Your task to perform on an android device: Search for alienware area 51 on newegg, select the first entry, add it to the cart, then select checkout. Image 0: 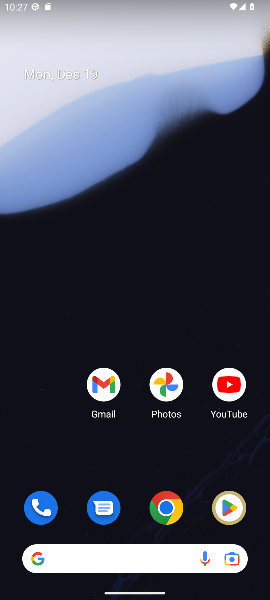
Step 0: click (163, 504)
Your task to perform on an android device: Search for alienware area 51 on newegg, select the first entry, add it to the cart, then select checkout. Image 1: 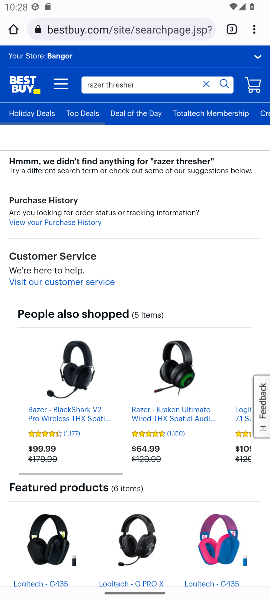
Step 1: click (231, 31)
Your task to perform on an android device: Search for alienware area 51 on newegg, select the first entry, add it to the cart, then select checkout. Image 2: 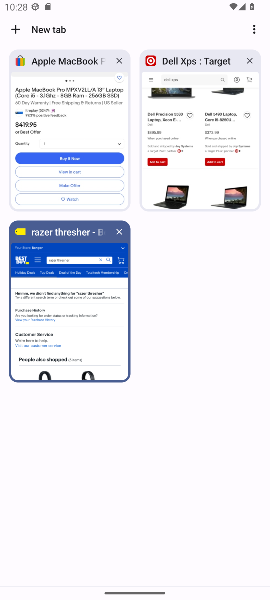
Step 2: click (17, 28)
Your task to perform on an android device: Search for alienware area 51 on newegg, select the first entry, add it to the cart, then select checkout. Image 3: 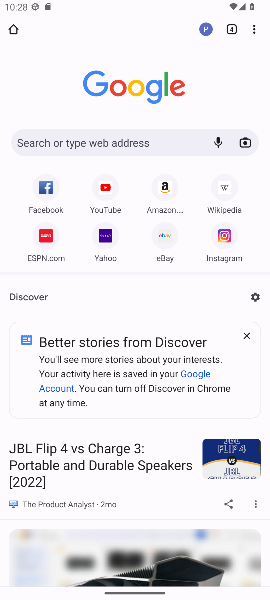
Step 3: click (97, 142)
Your task to perform on an android device: Search for alienware area 51 on newegg, select the first entry, add it to the cart, then select checkout. Image 4: 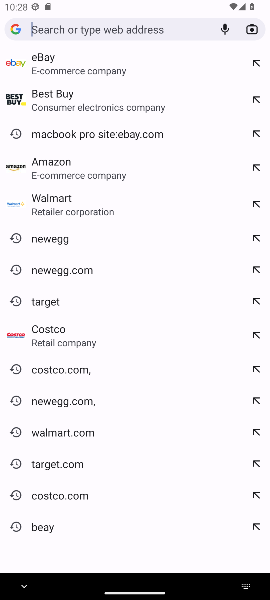
Step 4: click (59, 242)
Your task to perform on an android device: Search for alienware area 51 on newegg, select the first entry, add it to the cart, then select checkout. Image 5: 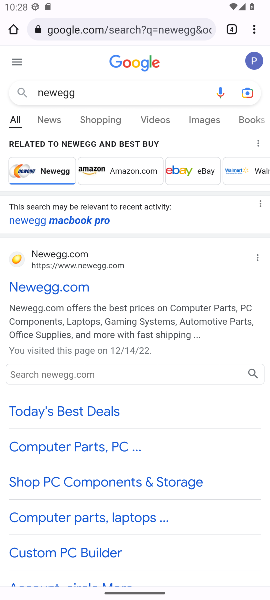
Step 5: click (42, 374)
Your task to perform on an android device: Search for alienware area 51 on newegg, select the first entry, add it to the cart, then select checkout. Image 6: 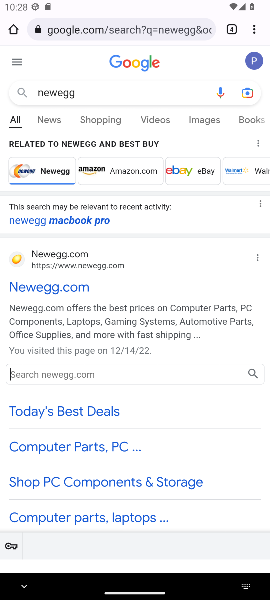
Step 6: type "alienware area 51"
Your task to perform on an android device: Search for alienware area 51 on newegg, select the first entry, add it to the cart, then select checkout. Image 7: 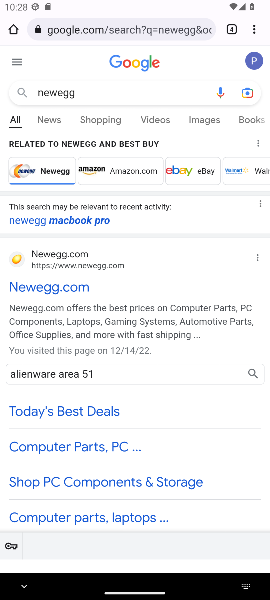
Step 7: click (252, 370)
Your task to perform on an android device: Search for alienware area 51 on newegg, select the first entry, add it to the cart, then select checkout. Image 8: 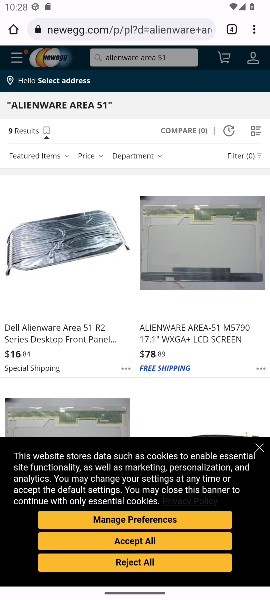
Step 8: click (170, 568)
Your task to perform on an android device: Search for alienware area 51 on newegg, select the first entry, add it to the cart, then select checkout. Image 9: 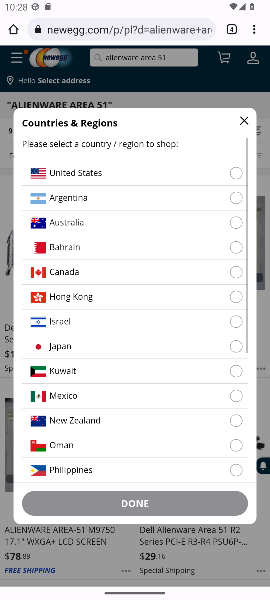
Step 9: click (233, 170)
Your task to perform on an android device: Search for alienware area 51 on newegg, select the first entry, add it to the cart, then select checkout. Image 10: 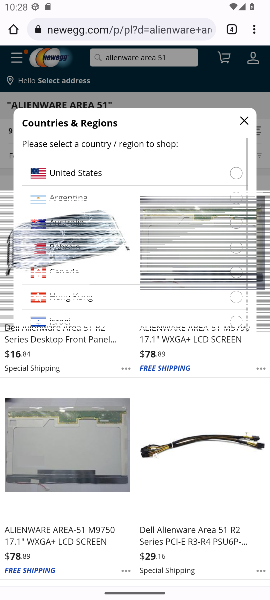
Step 10: click (236, 175)
Your task to perform on an android device: Search for alienware area 51 on newegg, select the first entry, add it to the cart, then select checkout. Image 11: 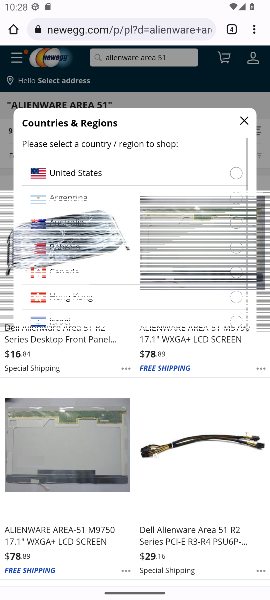
Step 11: click (241, 122)
Your task to perform on an android device: Search for alienware area 51 on newegg, select the first entry, add it to the cart, then select checkout. Image 12: 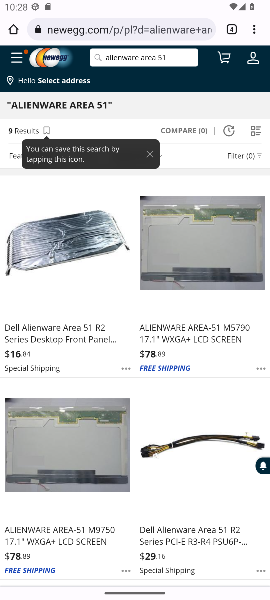
Step 12: click (35, 337)
Your task to perform on an android device: Search for alienware area 51 on newegg, select the first entry, add it to the cart, then select checkout. Image 13: 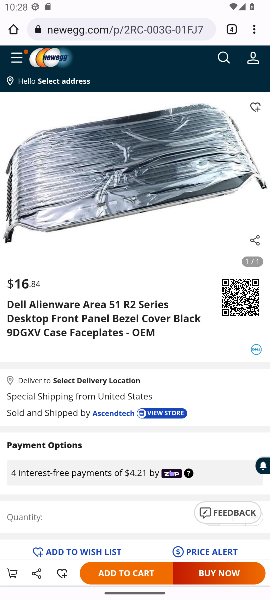
Step 13: click (136, 569)
Your task to perform on an android device: Search for alienware area 51 on newegg, select the first entry, add it to the cart, then select checkout. Image 14: 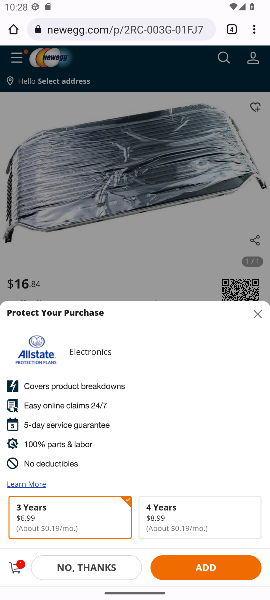
Step 14: task complete